Your task to perform on an android device: Open the stopwatch Image 0: 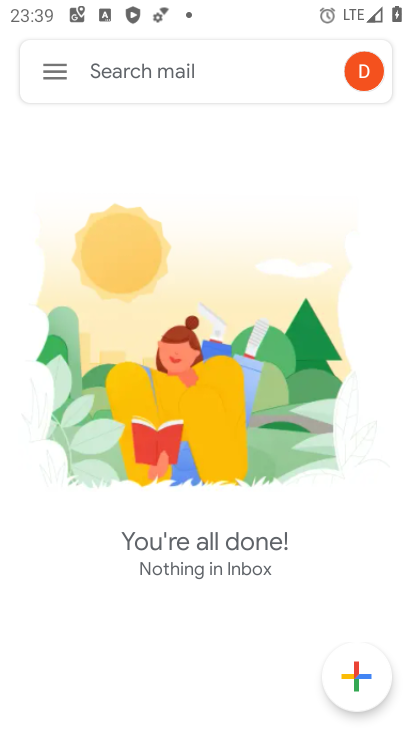
Step 0: press home button
Your task to perform on an android device: Open the stopwatch Image 1: 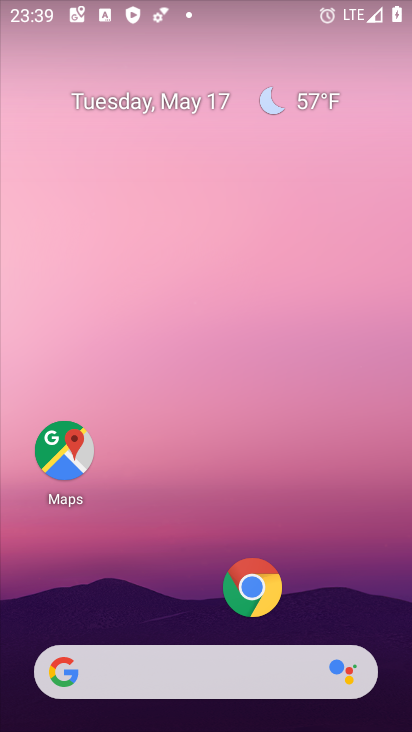
Step 1: drag from (7, 613) to (243, 186)
Your task to perform on an android device: Open the stopwatch Image 2: 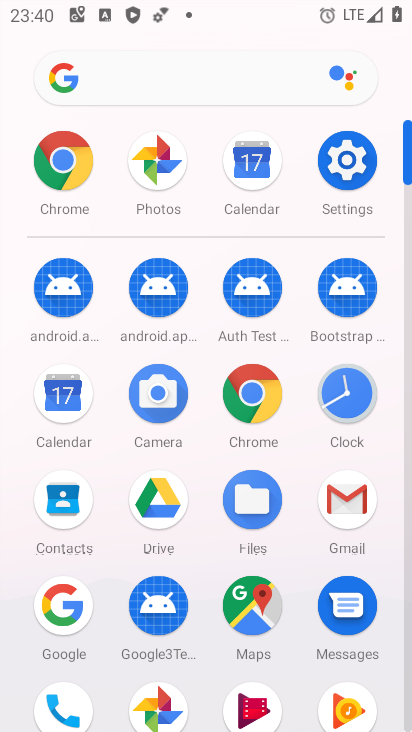
Step 2: click (347, 406)
Your task to perform on an android device: Open the stopwatch Image 3: 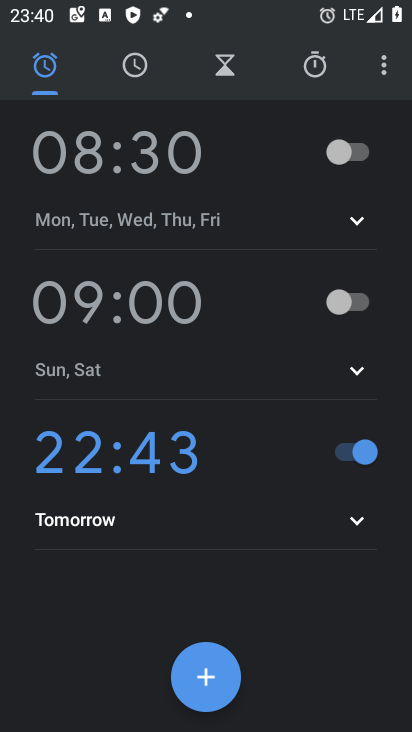
Step 3: click (308, 69)
Your task to perform on an android device: Open the stopwatch Image 4: 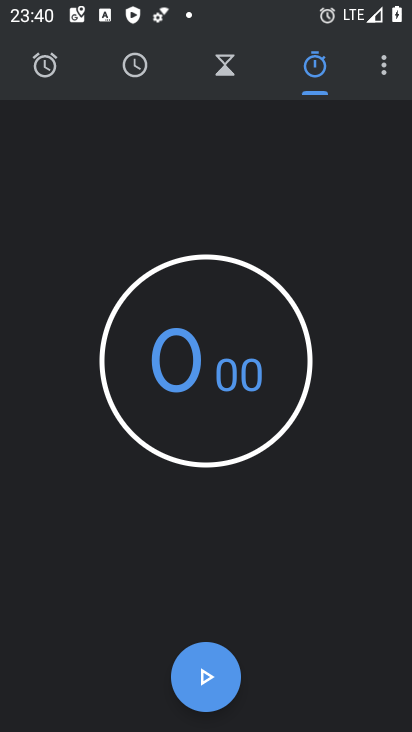
Step 4: click (209, 698)
Your task to perform on an android device: Open the stopwatch Image 5: 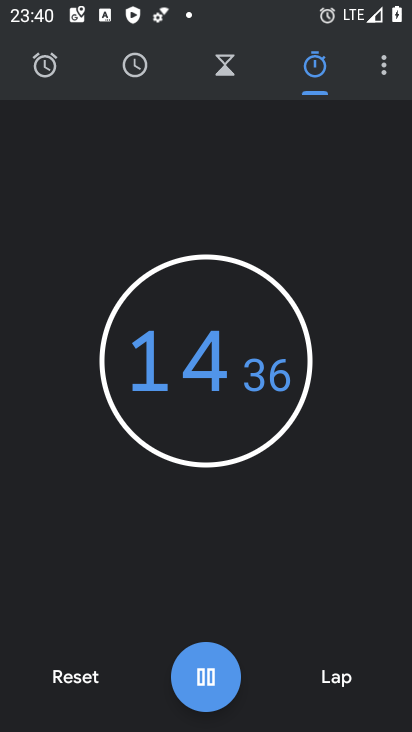
Step 5: task complete